Your task to perform on an android device: turn on notifications settings in the gmail app Image 0: 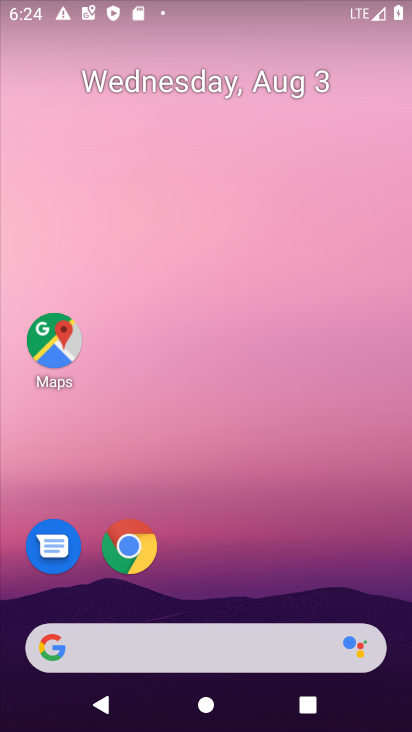
Step 0: press home button
Your task to perform on an android device: turn on notifications settings in the gmail app Image 1: 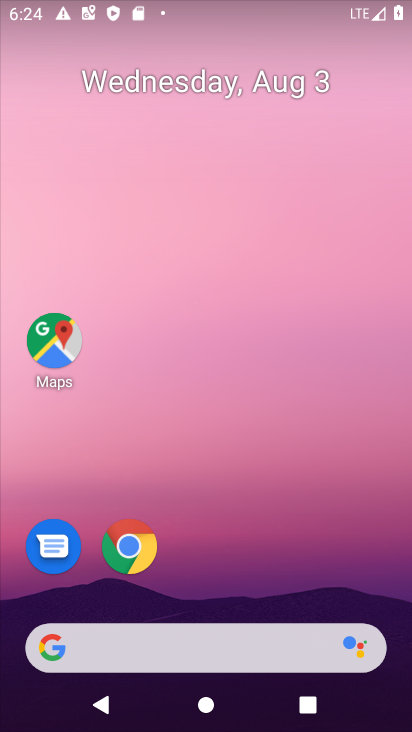
Step 1: click (301, 27)
Your task to perform on an android device: turn on notifications settings in the gmail app Image 2: 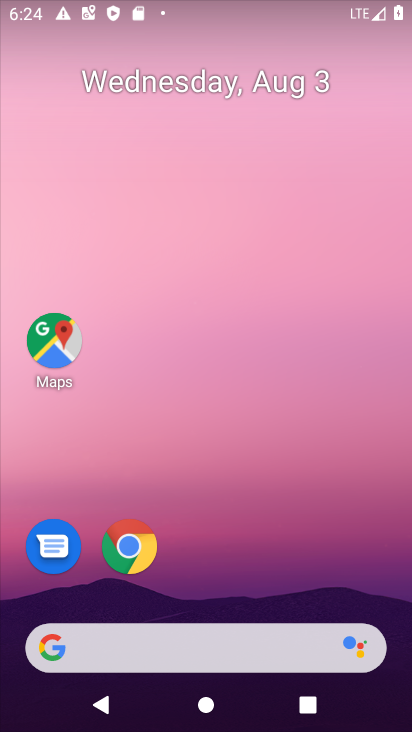
Step 2: drag from (243, 601) to (250, 122)
Your task to perform on an android device: turn on notifications settings in the gmail app Image 3: 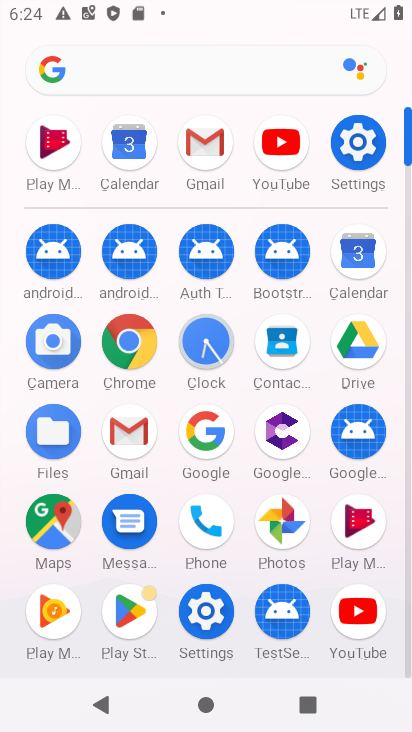
Step 3: click (198, 139)
Your task to perform on an android device: turn on notifications settings in the gmail app Image 4: 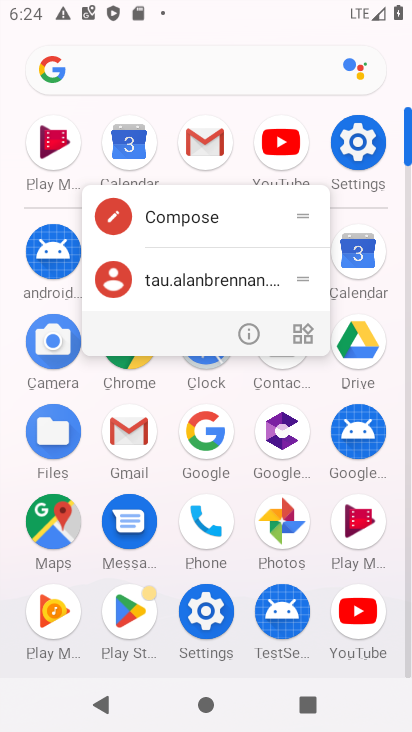
Step 4: click (204, 146)
Your task to perform on an android device: turn on notifications settings in the gmail app Image 5: 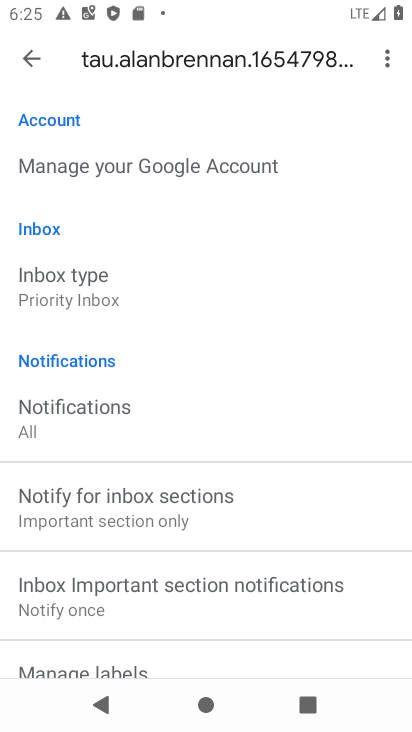
Step 5: drag from (257, 641) to (294, 222)
Your task to perform on an android device: turn on notifications settings in the gmail app Image 6: 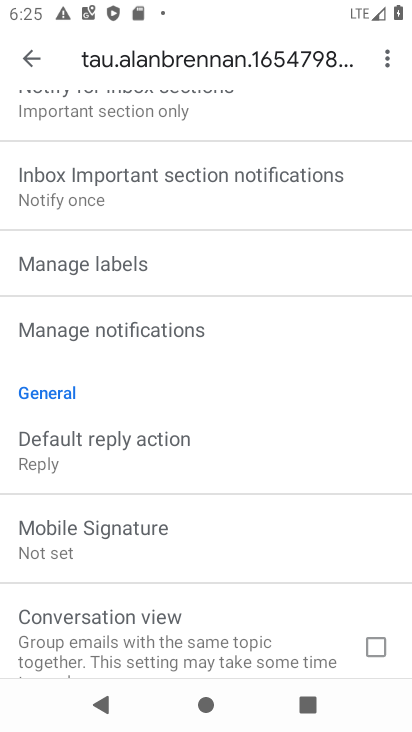
Step 6: click (96, 331)
Your task to perform on an android device: turn on notifications settings in the gmail app Image 7: 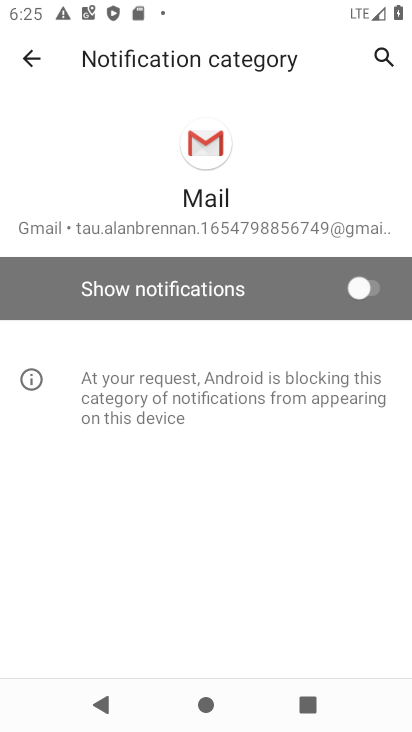
Step 7: click (351, 293)
Your task to perform on an android device: turn on notifications settings in the gmail app Image 8: 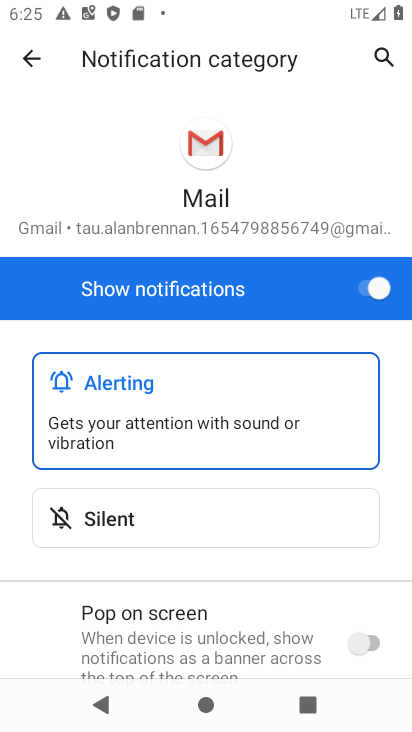
Step 8: task complete